Your task to perform on an android device: Open notification settings Image 0: 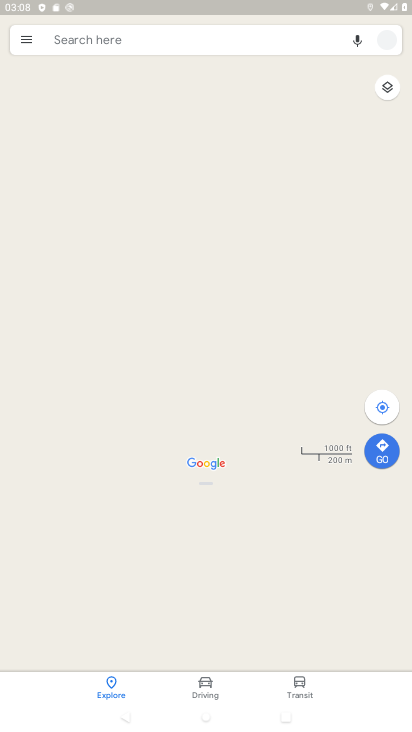
Step 0: press home button
Your task to perform on an android device: Open notification settings Image 1: 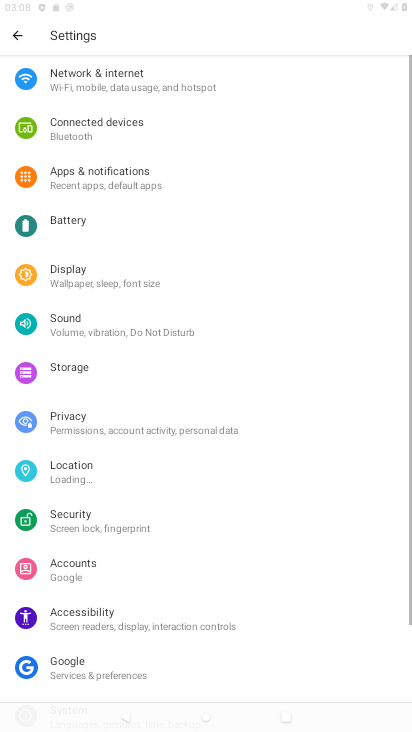
Step 1: drag from (316, 28) to (279, 16)
Your task to perform on an android device: Open notification settings Image 2: 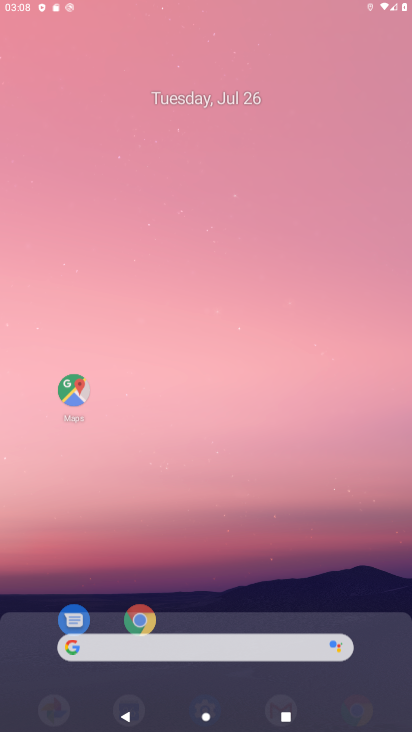
Step 2: drag from (156, 209) to (73, 97)
Your task to perform on an android device: Open notification settings Image 3: 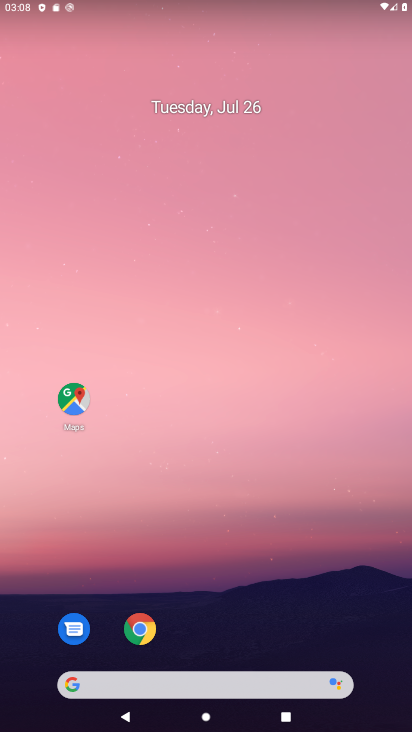
Step 3: drag from (338, 662) to (202, 59)
Your task to perform on an android device: Open notification settings Image 4: 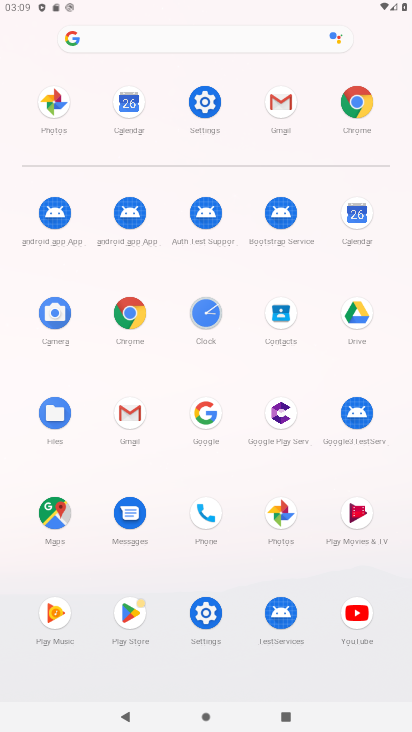
Step 4: click (202, 623)
Your task to perform on an android device: Open notification settings Image 5: 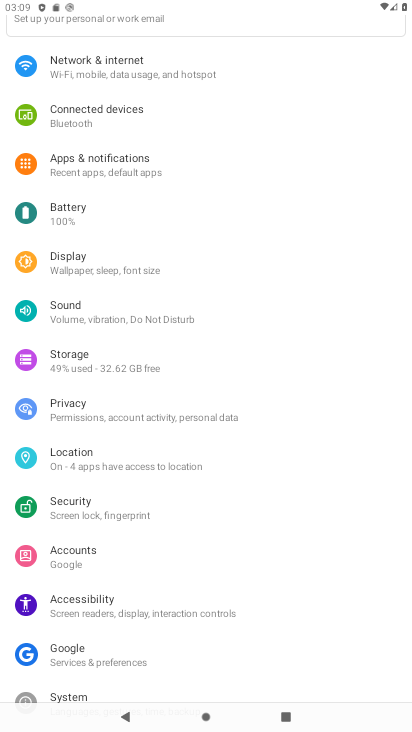
Step 5: click (89, 158)
Your task to perform on an android device: Open notification settings Image 6: 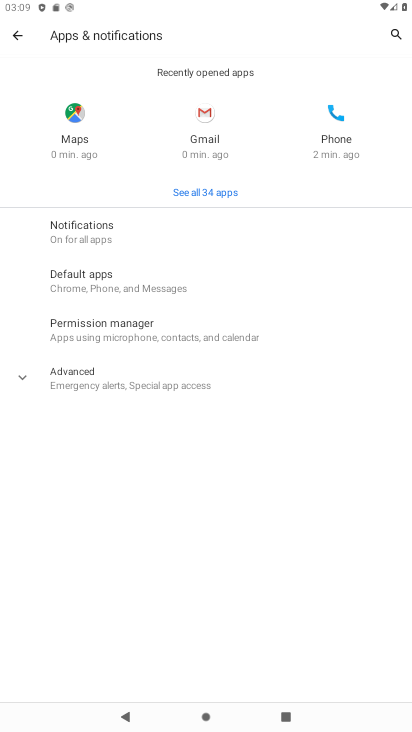
Step 6: click (84, 228)
Your task to perform on an android device: Open notification settings Image 7: 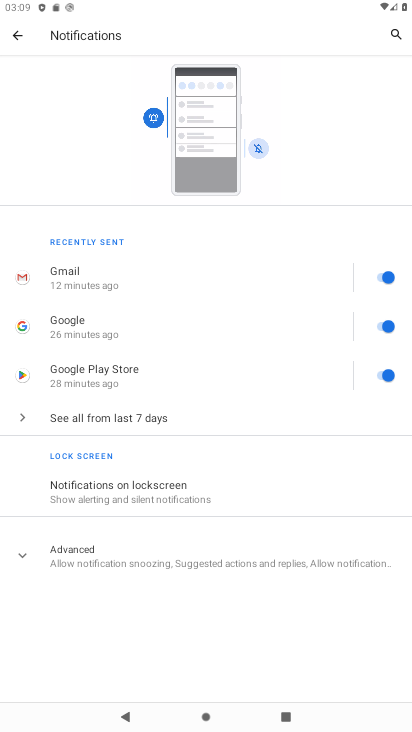
Step 7: task complete